Your task to perform on an android device: turn off sleep mode Image 0: 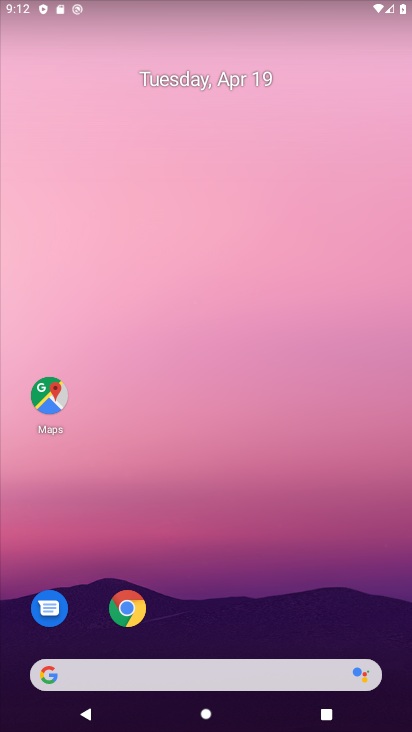
Step 0: drag from (352, 587) to (326, 22)
Your task to perform on an android device: turn off sleep mode Image 1: 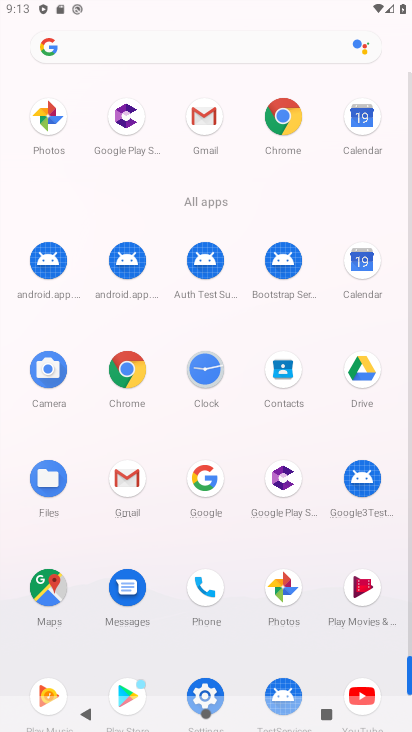
Step 1: drag from (397, 645) to (394, 431)
Your task to perform on an android device: turn off sleep mode Image 2: 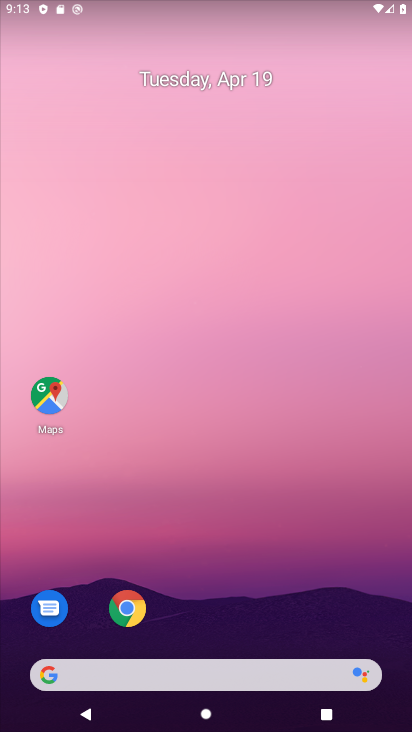
Step 2: drag from (391, 654) to (334, 107)
Your task to perform on an android device: turn off sleep mode Image 3: 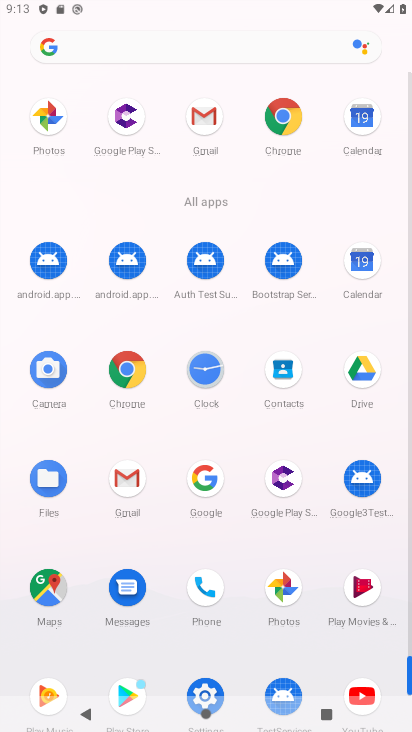
Step 3: click (408, 648)
Your task to perform on an android device: turn off sleep mode Image 4: 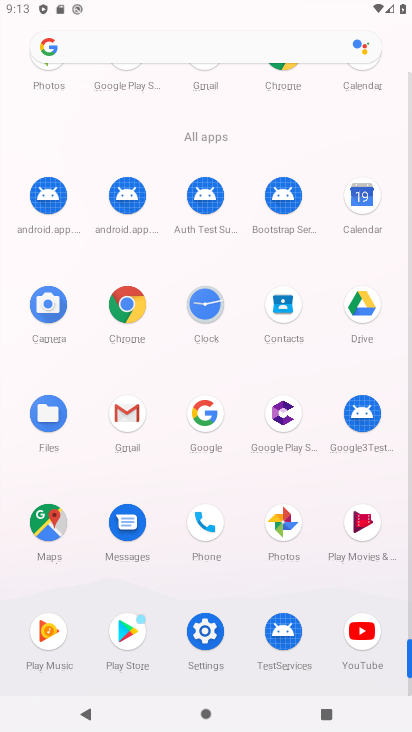
Step 4: click (206, 636)
Your task to perform on an android device: turn off sleep mode Image 5: 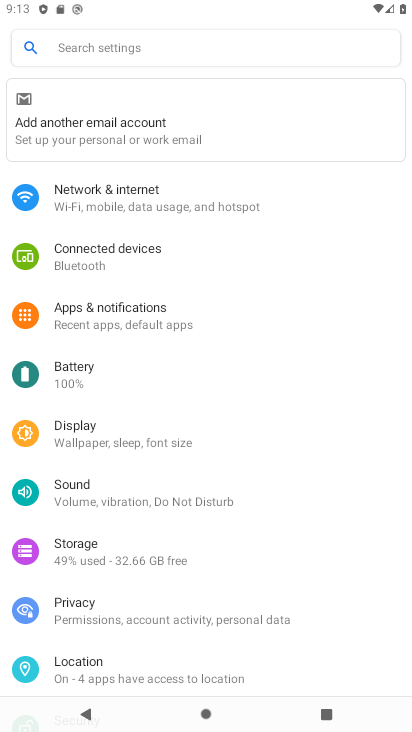
Step 5: click (94, 434)
Your task to perform on an android device: turn off sleep mode Image 6: 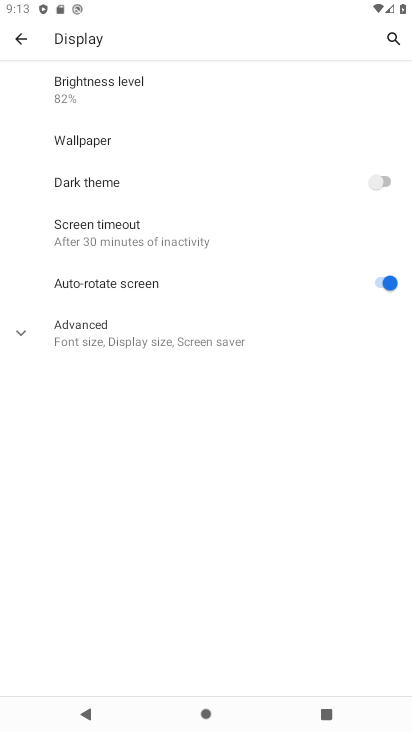
Step 6: click (14, 337)
Your task to perform on an android device: turn off sleep mode Image 7: 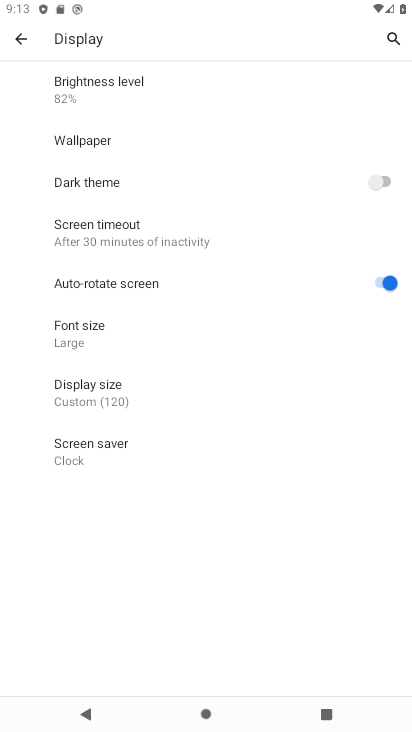
Step 7: task complete